Your task to perform on an android device: Find coffee shops on Maps Image 0: 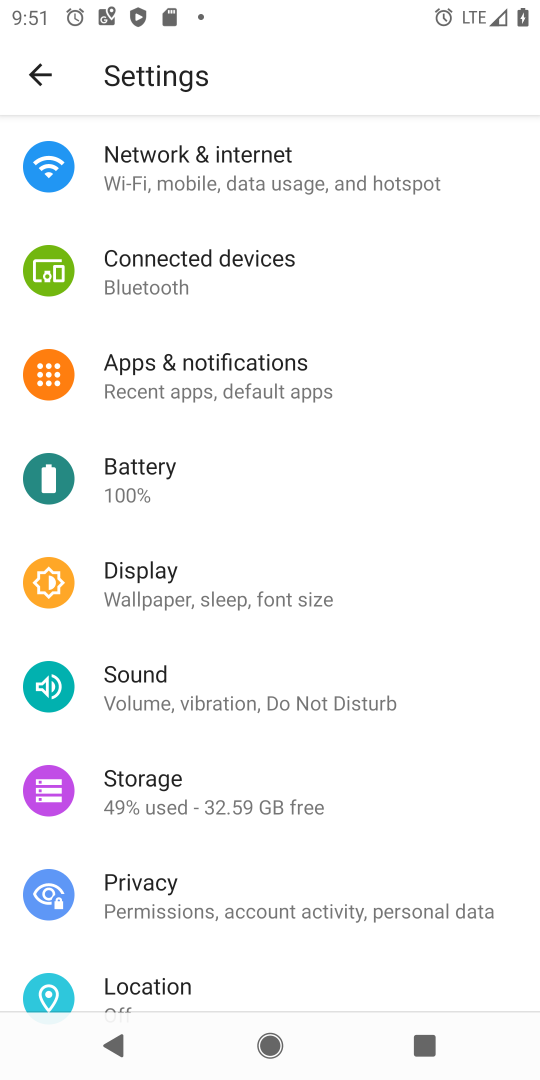
Step 0: press home button
Your task to perform on an android device: Find coffee shops on Maps Image 1: 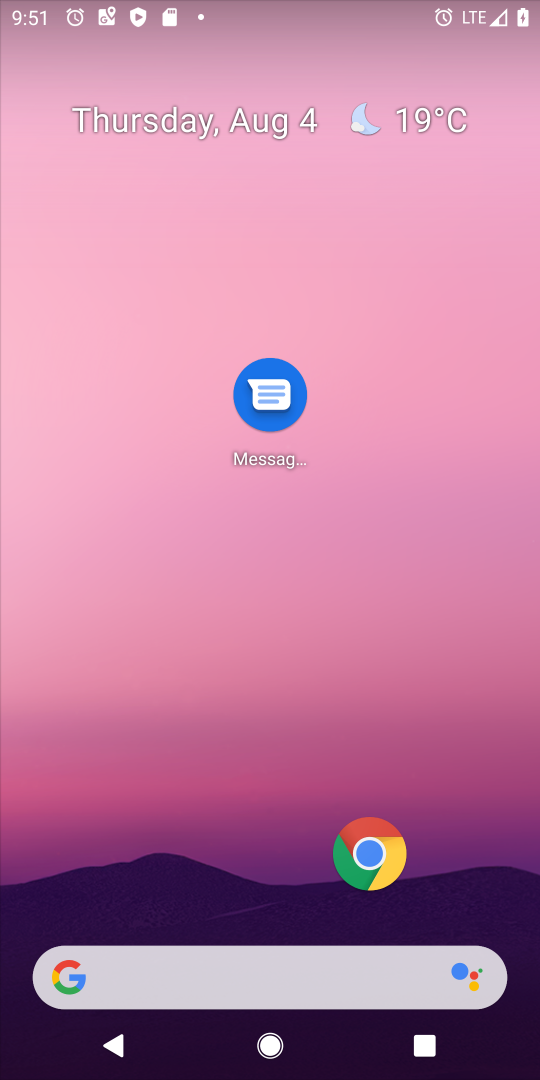
Step 1: drag from (250, 948) to (214, 318)
Your task to perform on an android device: Find coffee shops on Maps Image 2: 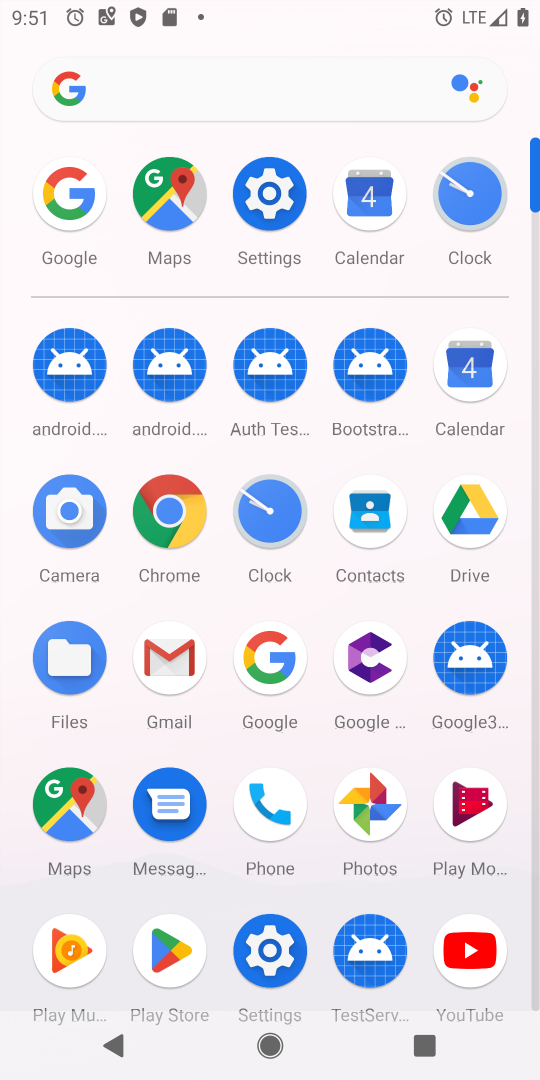
Step 2: click (46, 825)
Your task to perform on an android device: Find coffee shops on Maps Image 3: 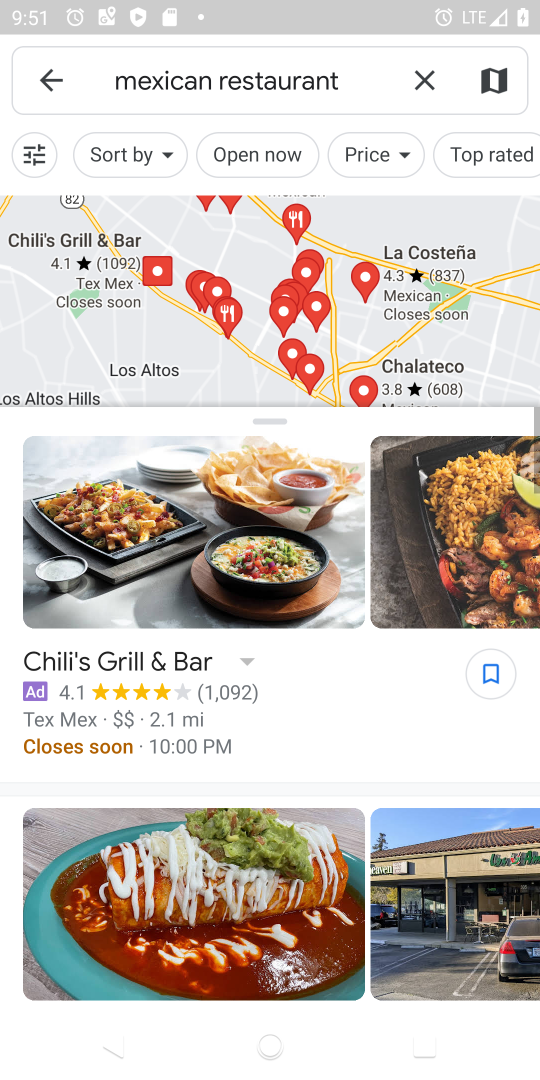
Step 3: click (420, 77)
Your task to perform on an android device: Find coffee shops on Maps Image 4: 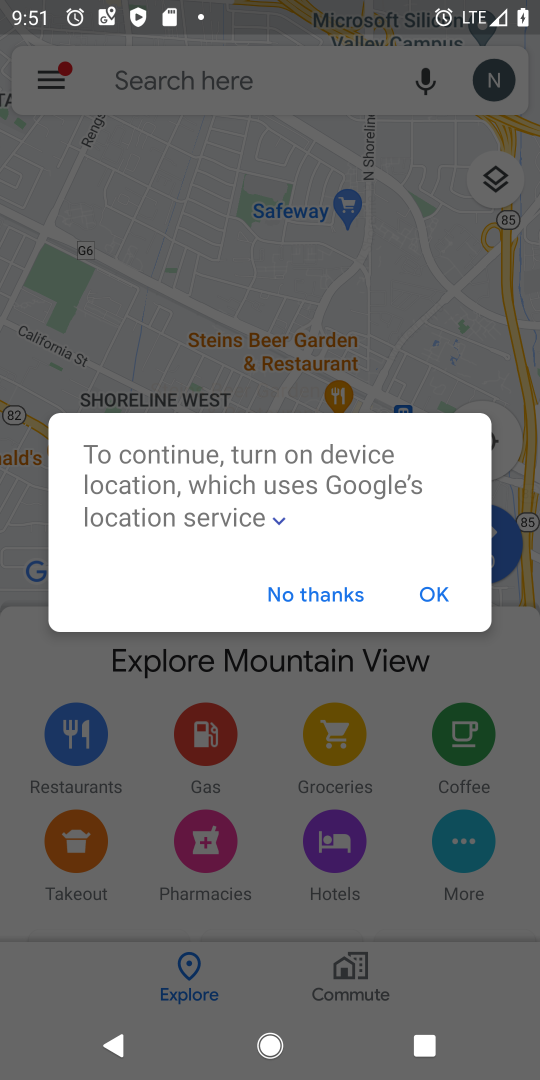
Step 4: click (426, 590)
Your task to perform on an android device: Find coffee shops on Maps Image 5: 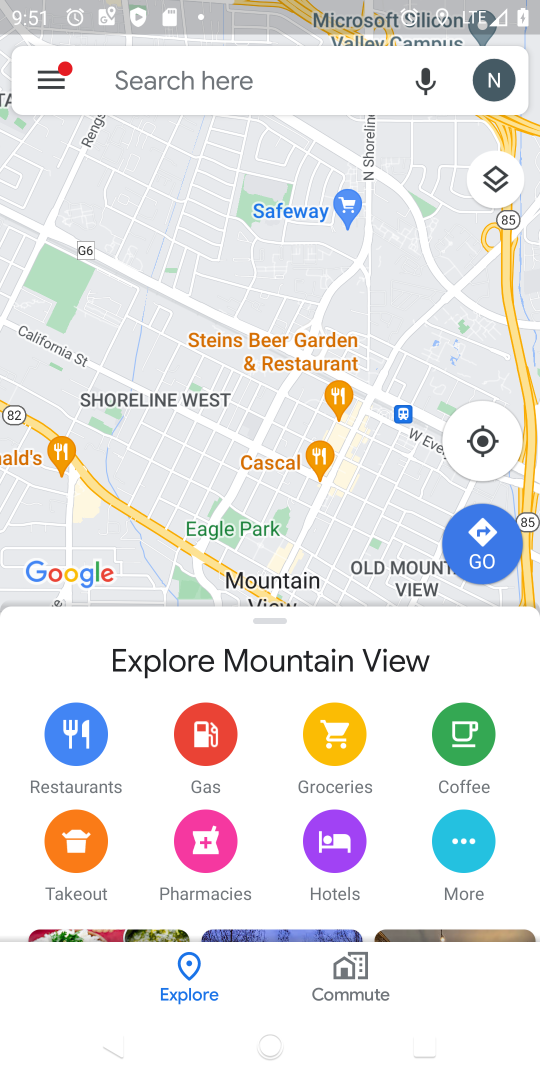
Step 5: click (242, 94)
Your task to perform on an android device: Find coffee shops on Maps Image 6: 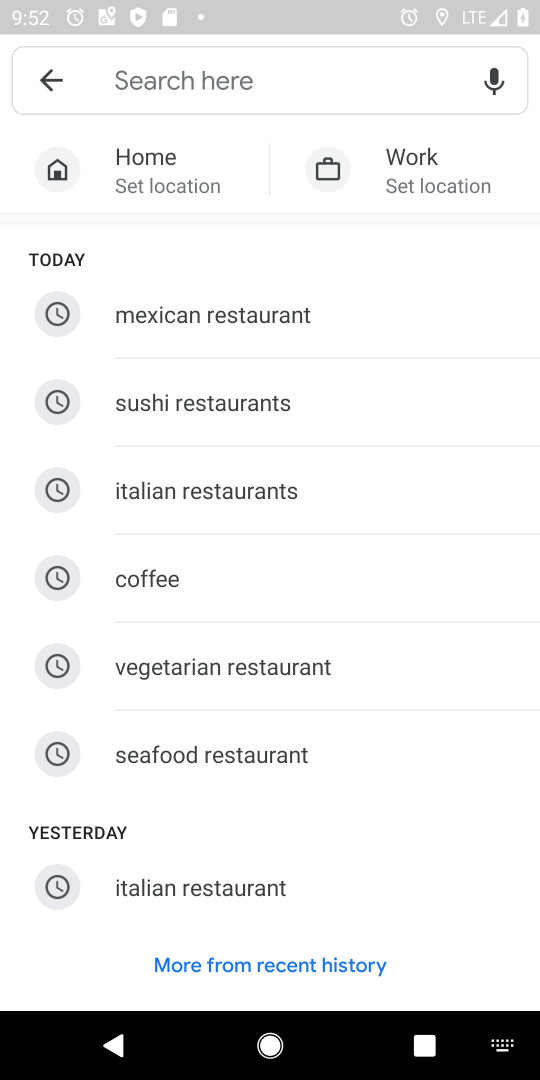
Step 6: click (165, 591)
Your task to perform on an android device: Find coffee shops on Maps Image 7: 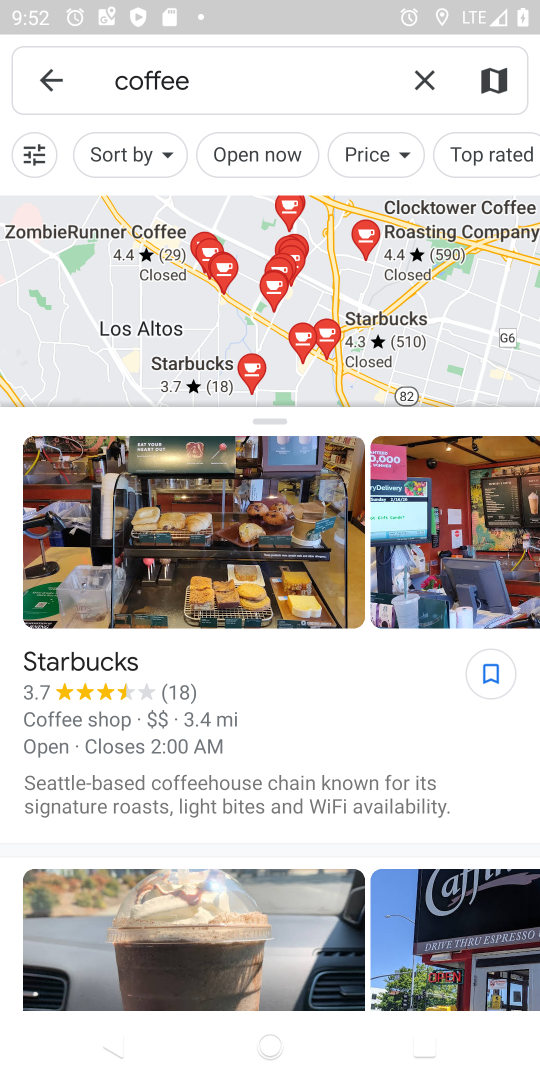
Step 7: task complete